Your task to perform on an android device: toggle location history Image 0: 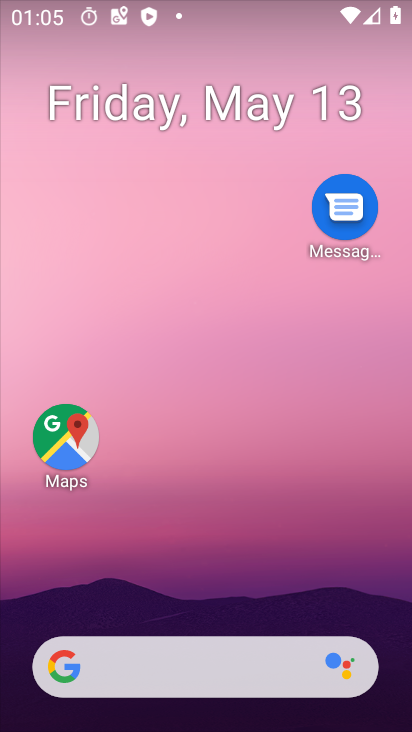
Step 0: click (70, 432)
Your task to perform on an android device: toggle location history Image 1: 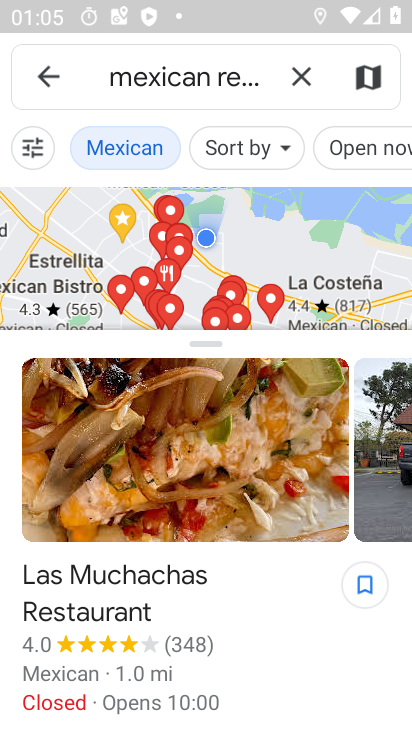
Step 1: click (49, 69)
Your task to perform on an android device: toggle location history Image 2: 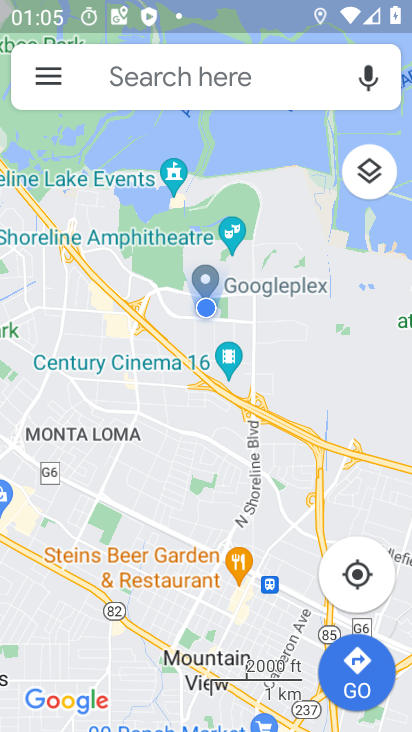
Step 2: click (47, 81)
Your task to perform on an android device: toggle location history Image 3: 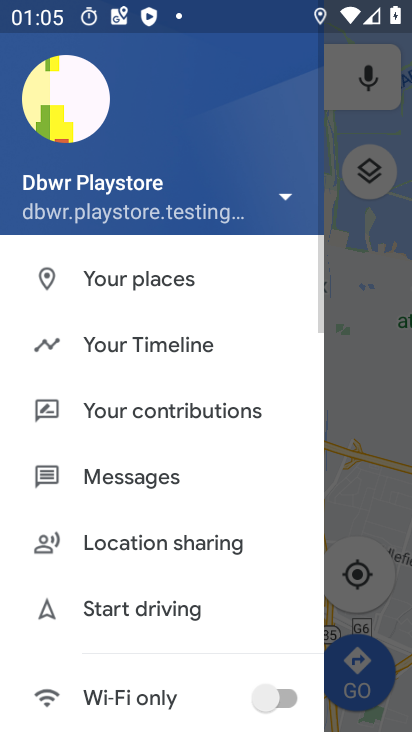
Step 3: click (139, 340)
Your task to perform on an android device: toggle location history Image 4: 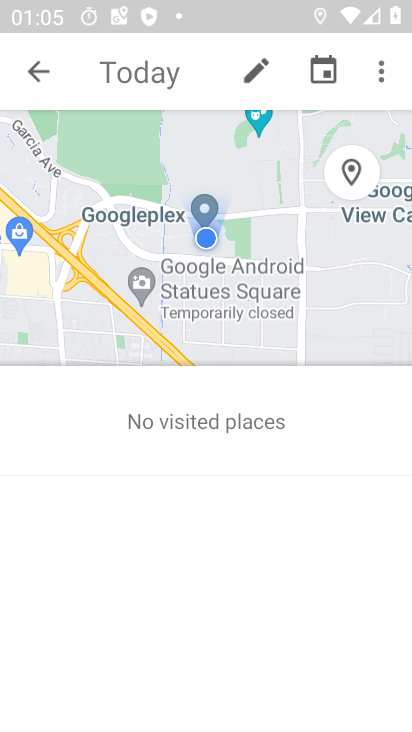
Step 4: click (386, 68)
Your task to perform on an android device: toggle location history Image 5: 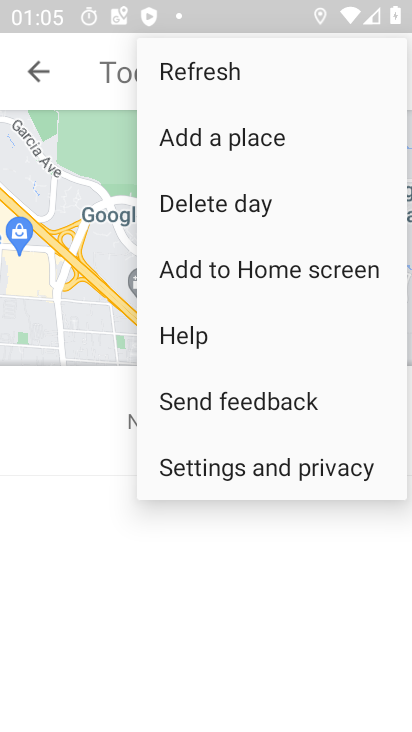
Step 5: click (317, 469)
Your task to perform on an android device: toggle location history Image 6: 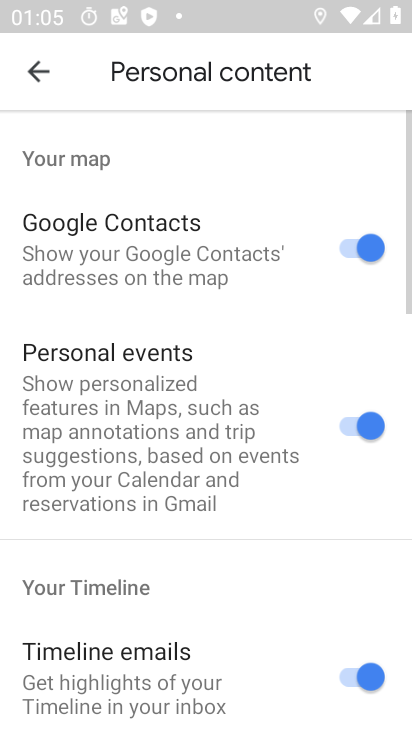
Step 6: drag from (247, 551) to (257, 209)
Your task to perform on an android device: toggle location history Image 7: 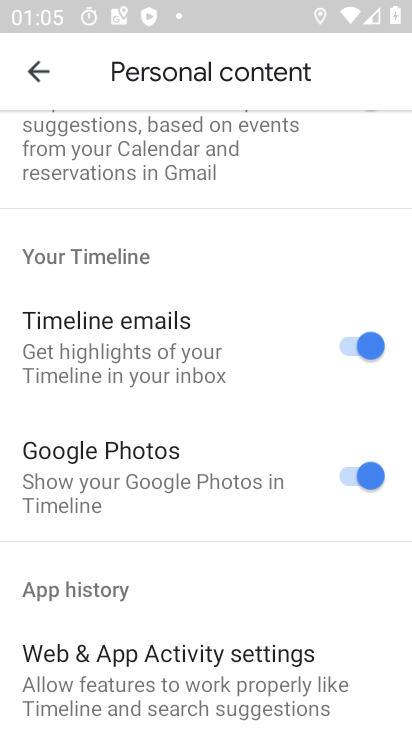
Step 7: drag from (265, 625) to (250, 194)
Your task to perform on an android device: toggle location history Image 8: 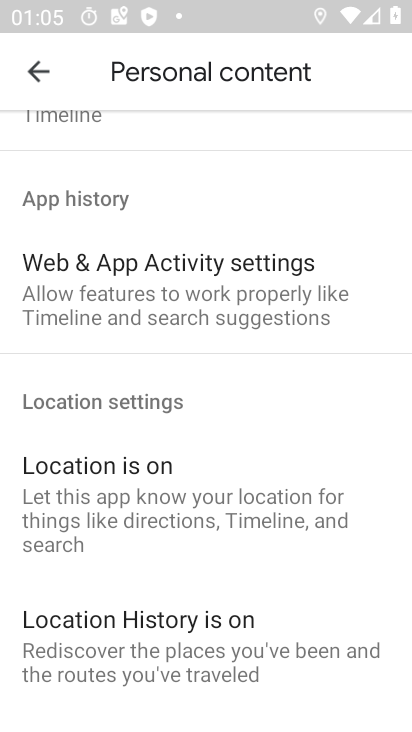
Step 8: click (190, 642)
Your task to perform on an android device: toggle location history Image 9: 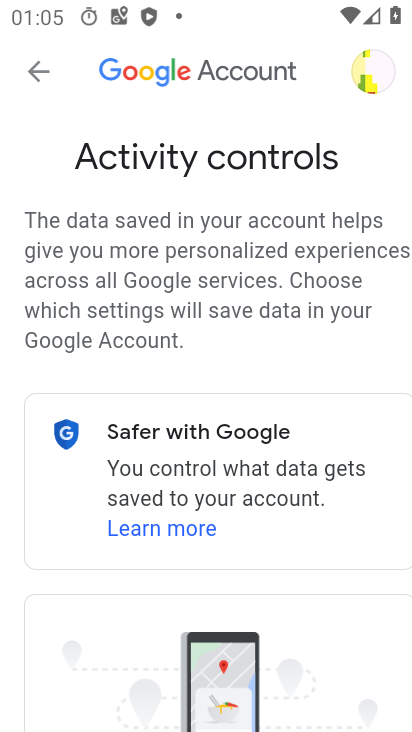
Step 9: drag from (272, 565) to (279, 97)
Your task to perform on an android device: toggle location history Image 10: 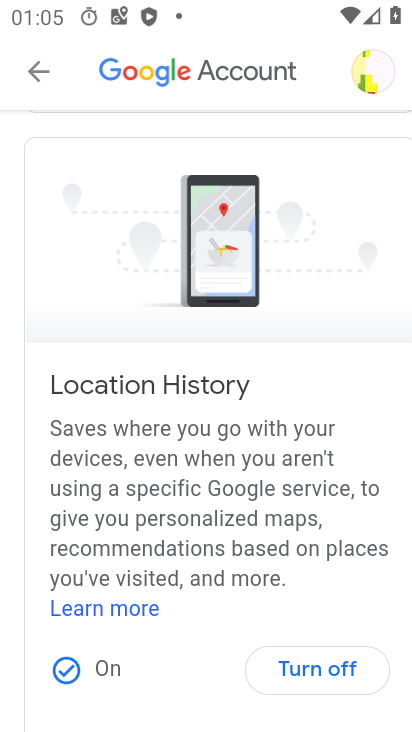
Step 10: click (306, 668)
Your task to perform on an android device: toggle location history Image 11: 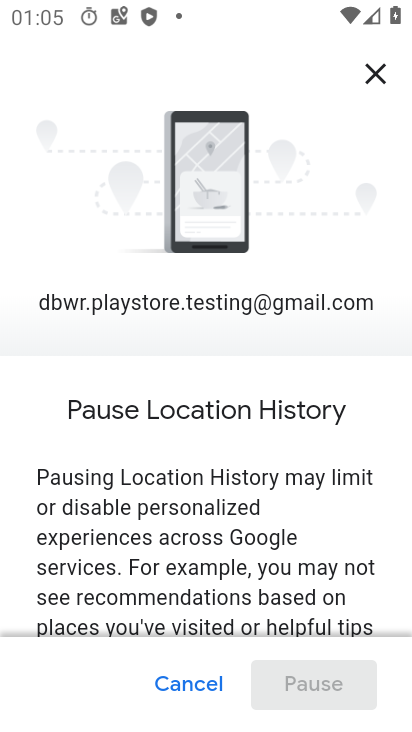
Step 11: drag from (311, 632) to (283, 61)
Your task to perform on an android device: toggle location history Image 12: 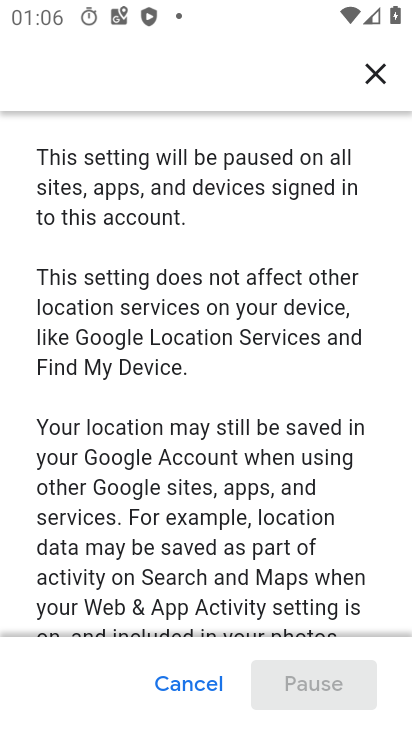
Step 12: drag from (245, 567) to (258, 91)
Your task to perform on an android device: toggle location history Image 13: 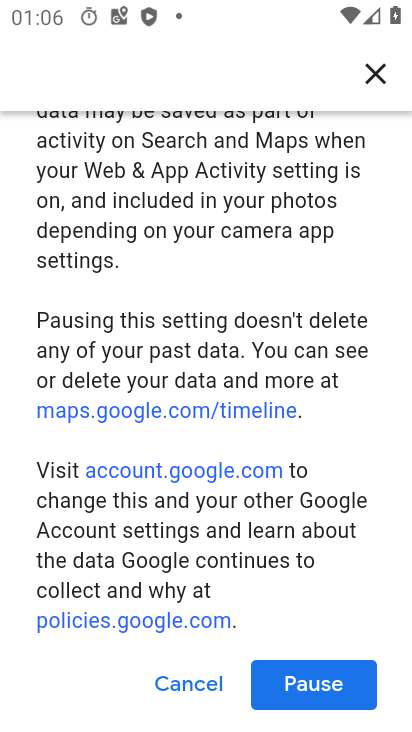
Step 13: click (298, 681)
Your task to perform on an android device: toggle location history Image 14: 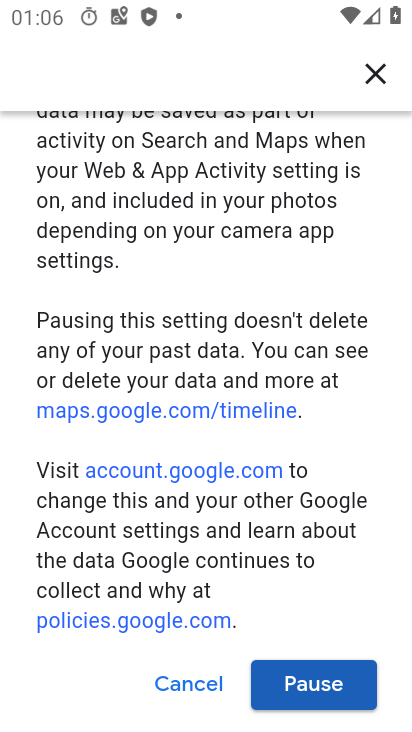
Step 14: click (308, 681)
Your task to perform on an android device: toggle location history Image 15: 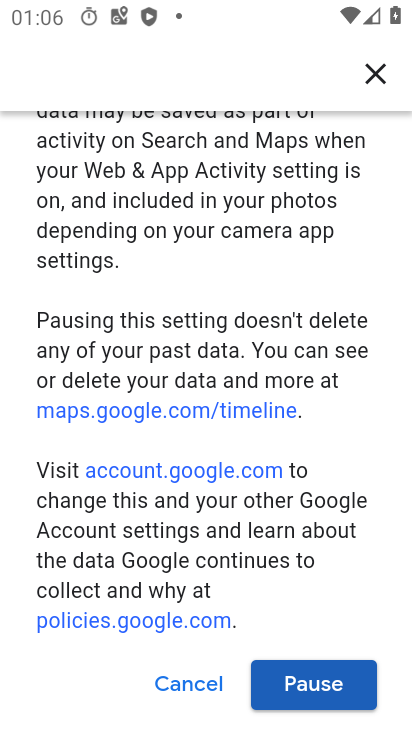
Step 15: click (308, 681)
Your task to perform on an android device: toggle location history Image 16: 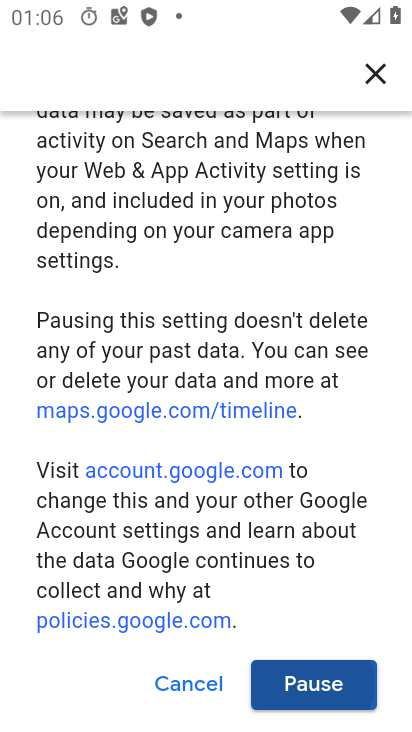
Step 16: click (308, 681)
Your task to perform on an android device: toggle location history Image 17: 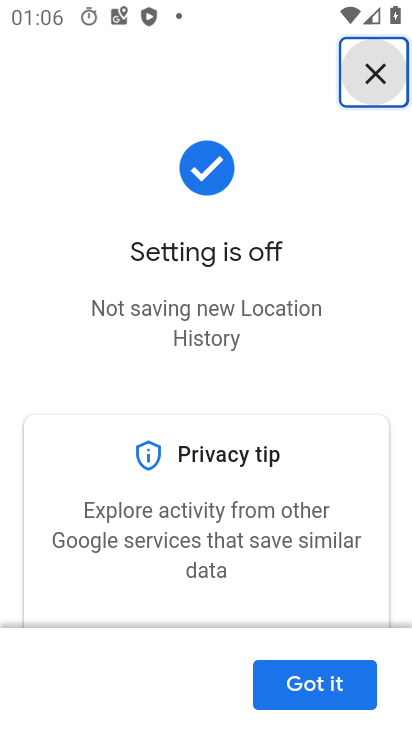
Step 17: click (343, 687)
Your task to perform on an android device: toggle location history Image 18: 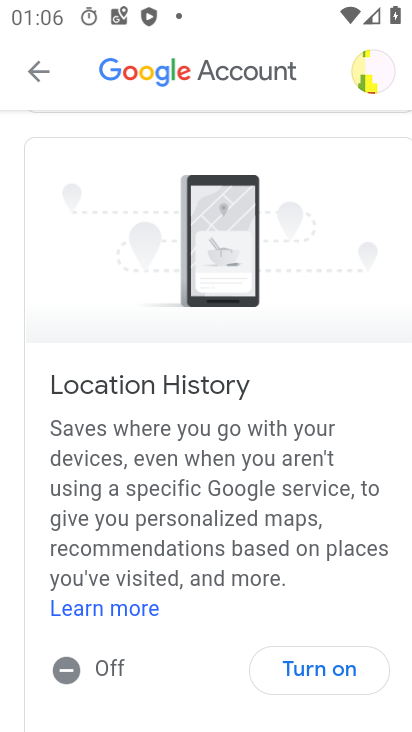
Step 18: task complete